Your task to perform on an android device: clear history in the chrome app Image 0: 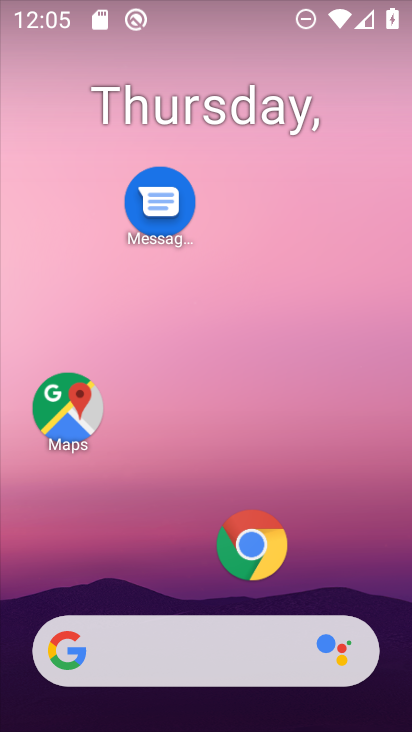
Step 0: click (261, 537)
Your task to perform on an android device: clear history in the chrome app Image 1: 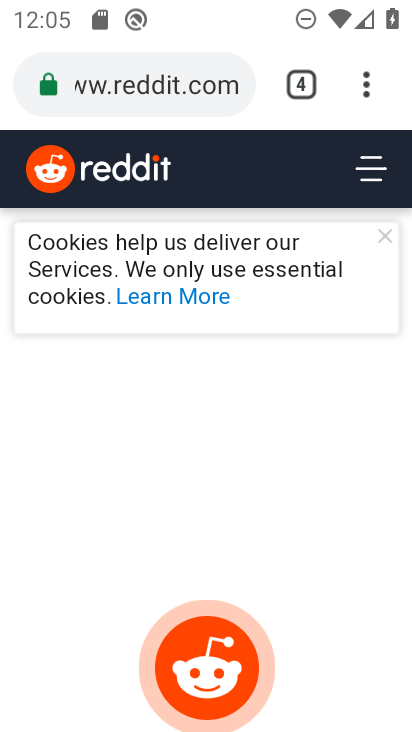
Step 1: click (354, 77)
Your task to perform on an android device: clear history in the chrome app Image 2: 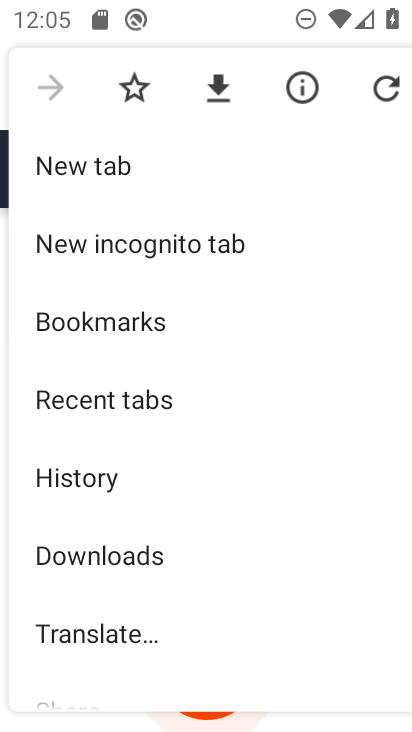
Step 2: drag from (165, 620) to (157, 357)
Your task to perform on an android device: clear history in the chrome app Image 3: 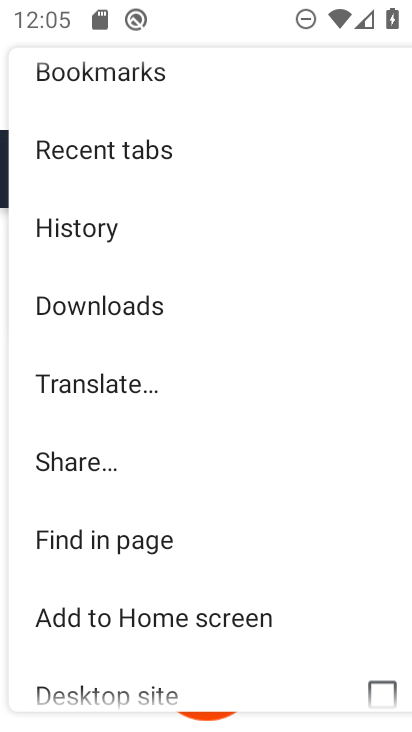
Step 3: click (120, 233)
Your task to perform on an android device: clear history in the chrome app Image 4: 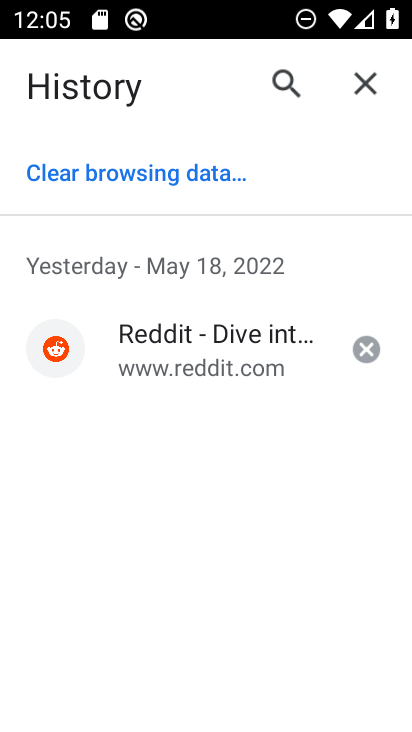
Step 4: click (137, 168)
Your task to perform on an android device: clear history in the chrome app Image 5: 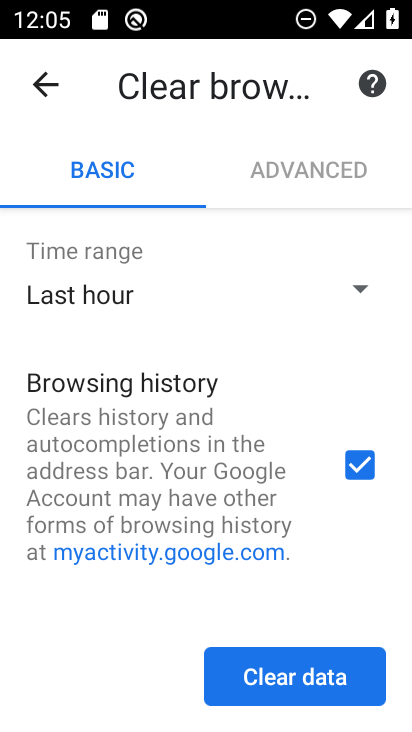
Step 5: drag from (240, 518) to (242, 205)
Your task to perform on an android device: clear history in the chrome app Image 6: 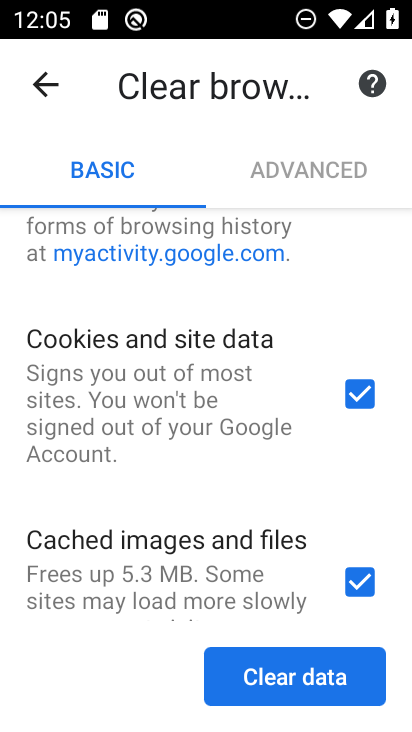
Step 6: click (269, 673)
Your task to perform on an android device: clear history in the chrome app Image 7: 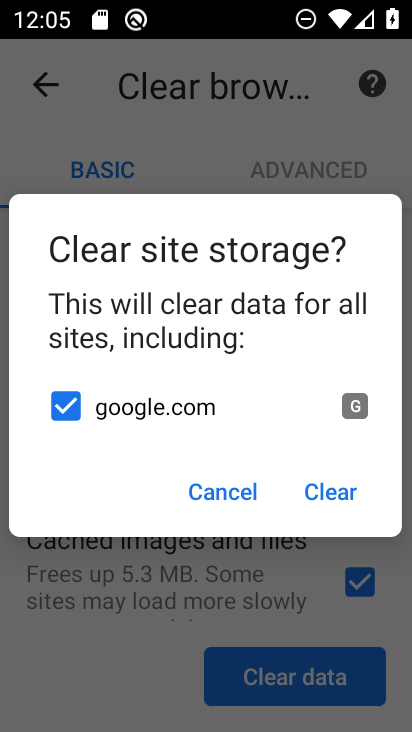
Step 7: click (308, 478)
Your task to perform on an android device: clear history in the chrome app Image 8: 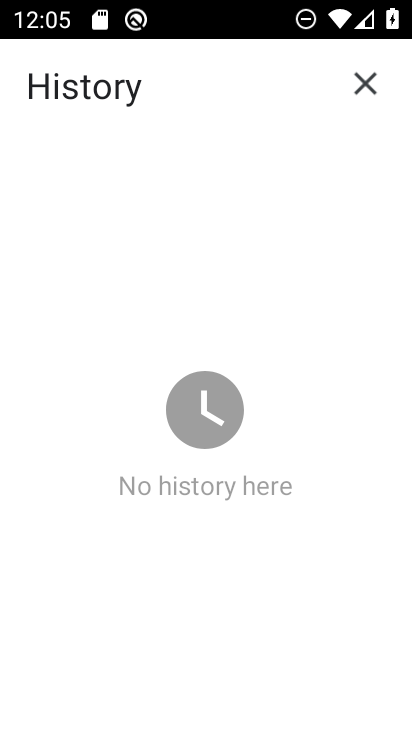
Step 8: task complete